Your task to perform on an android device: turn on improve location accuracy Image 0: 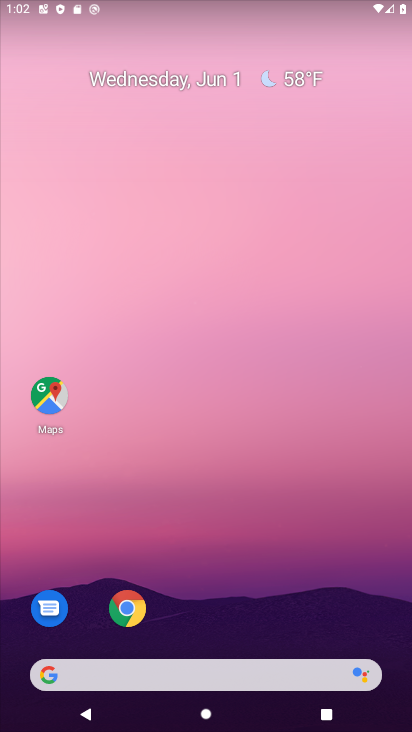
Step 0: drag from (267, 603) to (261, 133)
Your task to perform on an android device: turn on improve location accuracy Image 1: 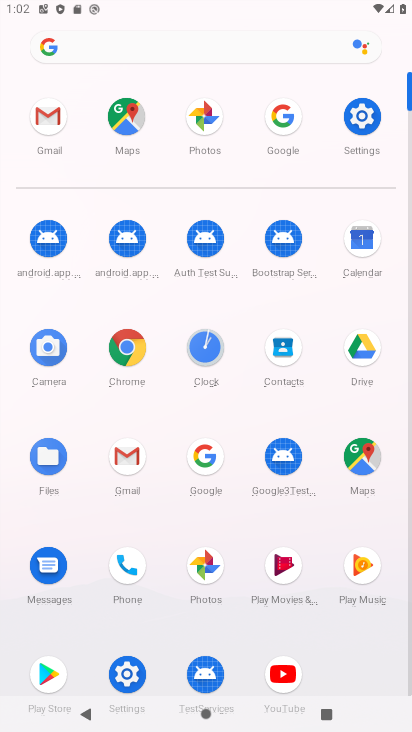
Step 1: click (368, 115)
Your task to perform on an android device: turn on improve location accuracy Image 2: 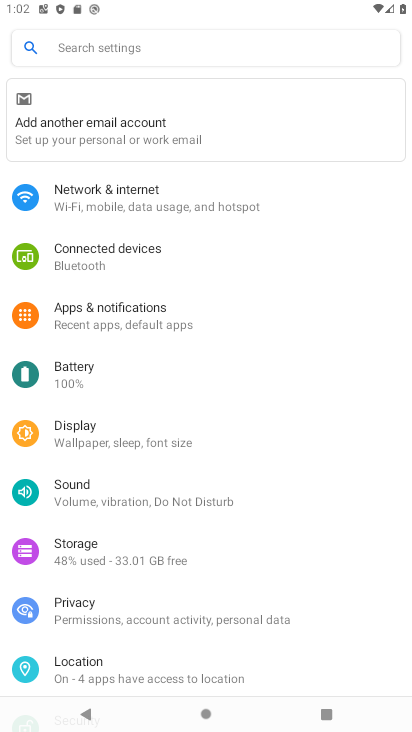
Step 2: click (125, 665)
Your task to perform on an android device: turn on improve location accuracy Image 3: 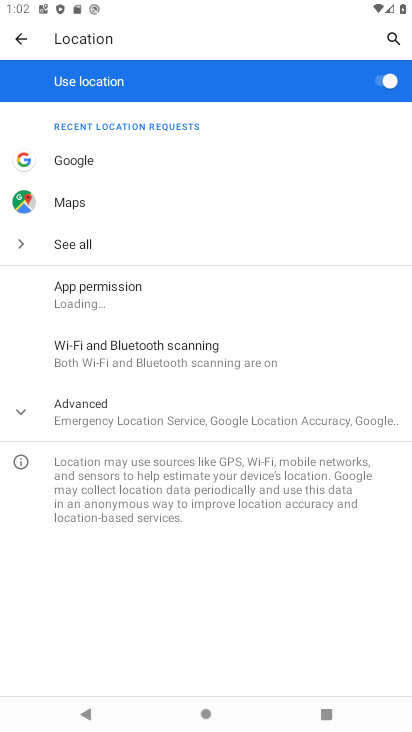
Step 3: click (163, 399)
Your task to perform on an android device: turn on improve location accuracy Image 4: 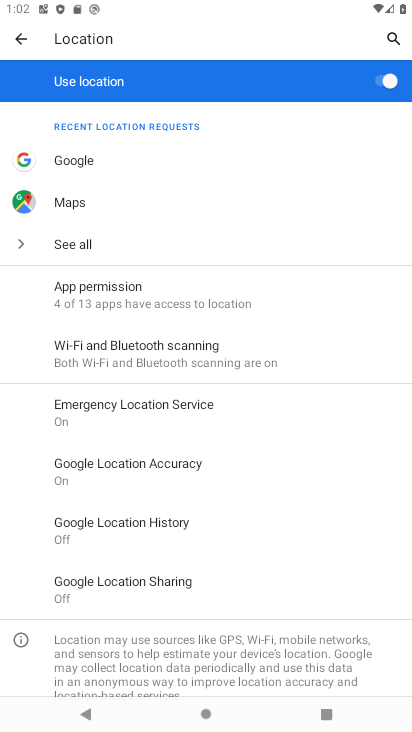
Step 4: click (173, 457)
Your task to perform on an android device: turn on improve location accuracy Image 5: 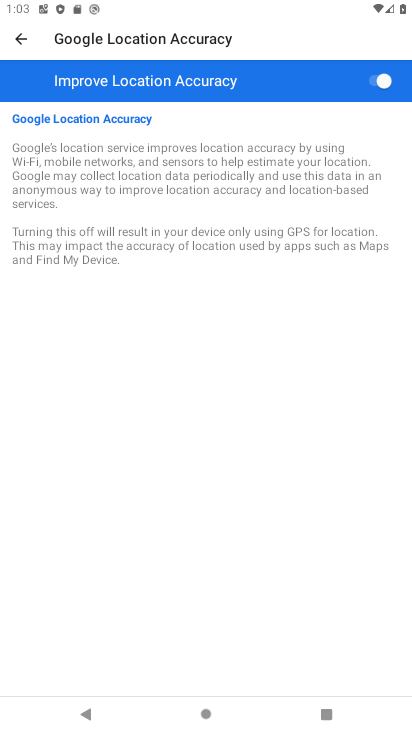
Step 5: task complete